Your task to perform on an android device: Search for hotels in London Image 0: 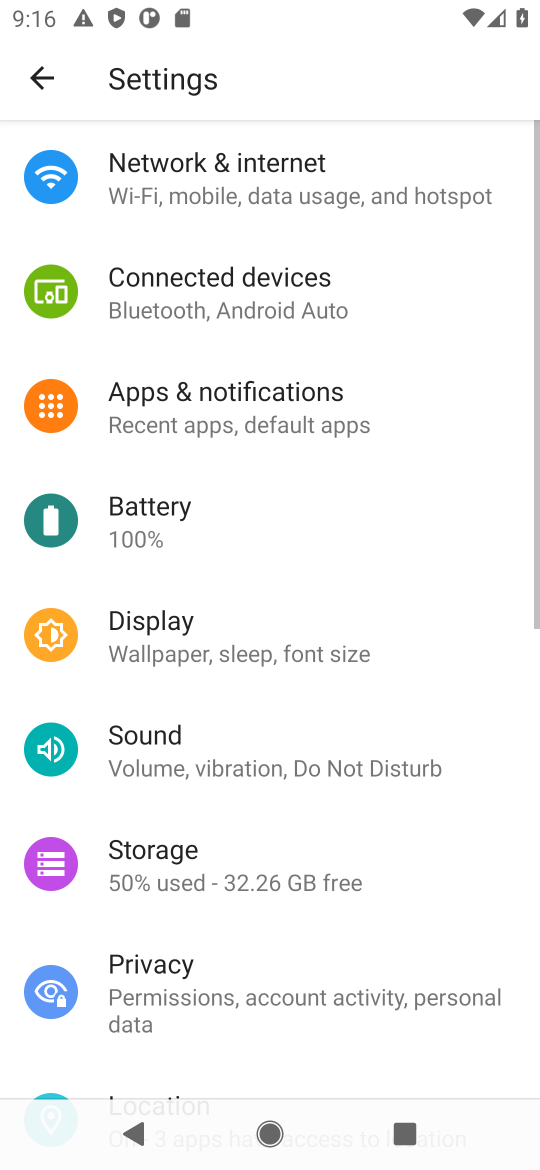
Step 0: press home button
Your task to perform on an android device: Search for hotels in London Image 1: 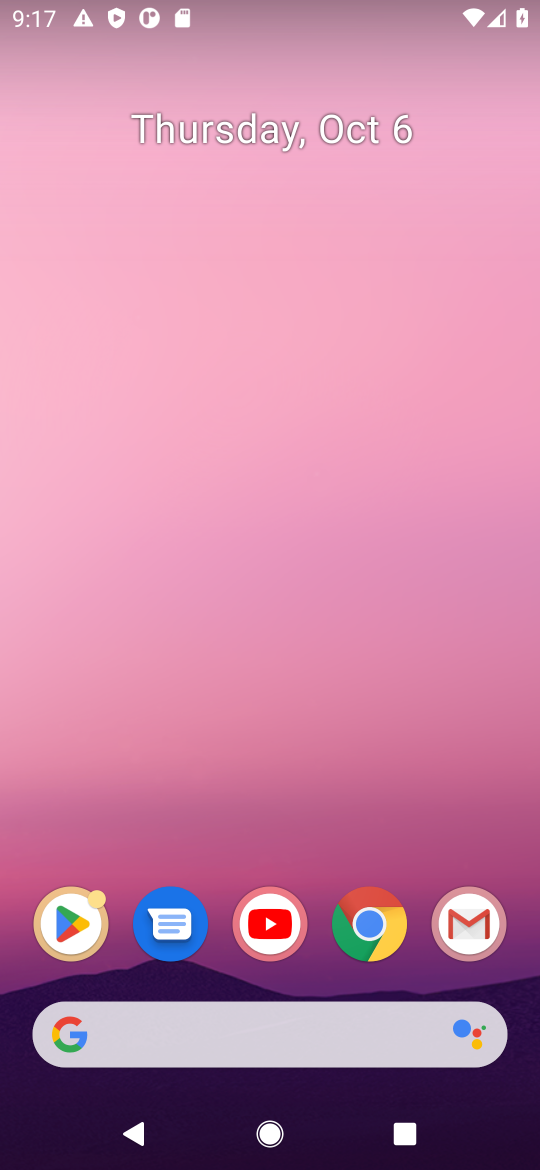
Step 1: drag from (274, 968) to (370, 62)
Your task to perform on an android device: Search for hotels in London Image 2: 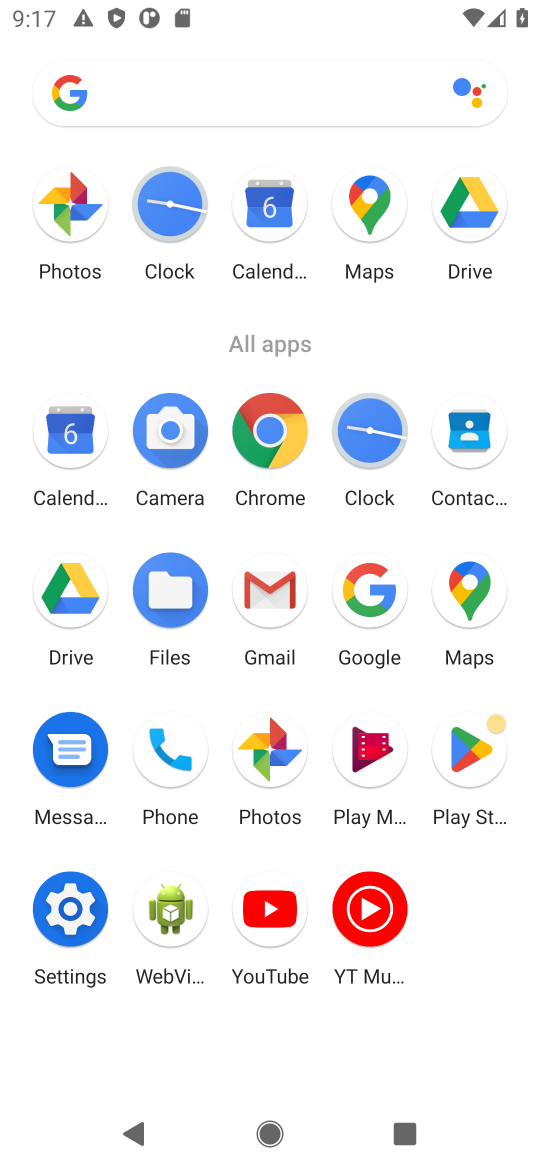
Step 2: click (61, 210)
Your task to perform on an android device: Search for hotels in London Image 3: 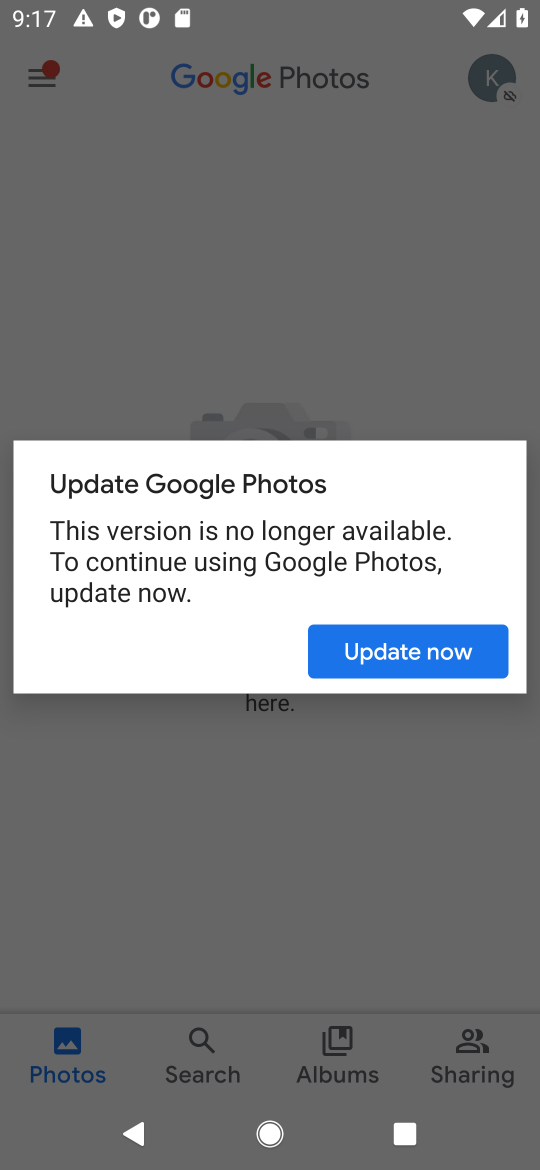
Step 3: press back button
Your task to perform on an android device: Search for hotels in London Image 4: 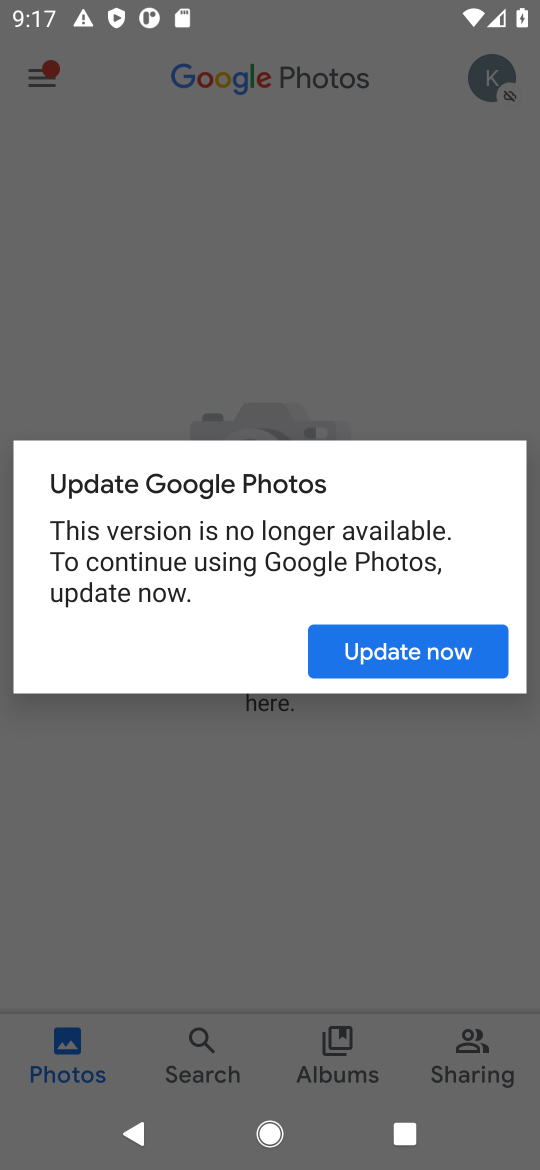
Step 4: press home button
Your task to perform on an android device: Search for hotels in London Image 5: 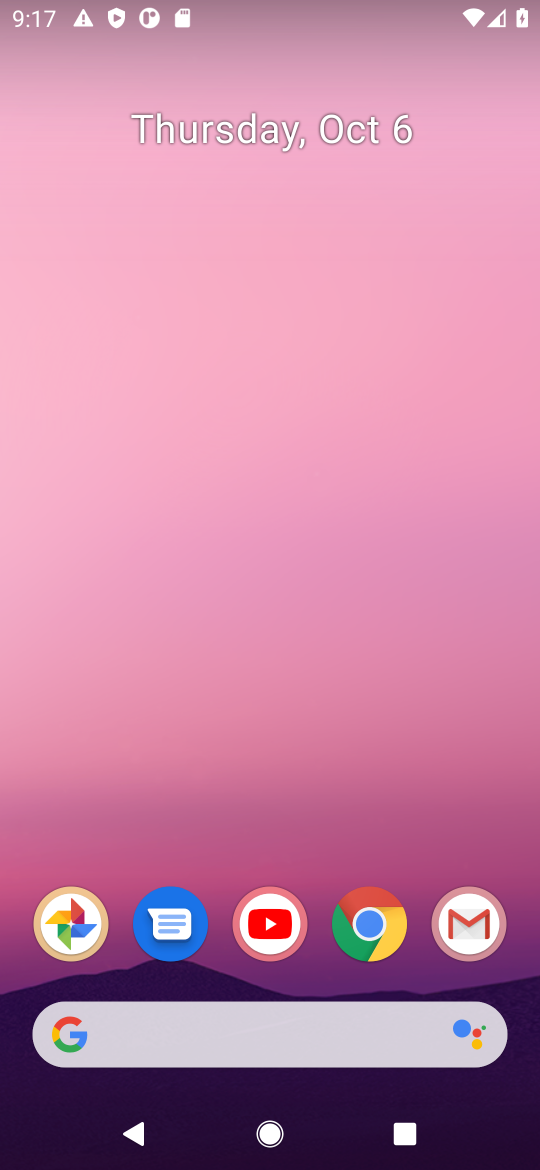
Step 5: drag from (244, 1015) to (377, 161)
Your task to perform on an android device: Search for hotels in London Image 6: 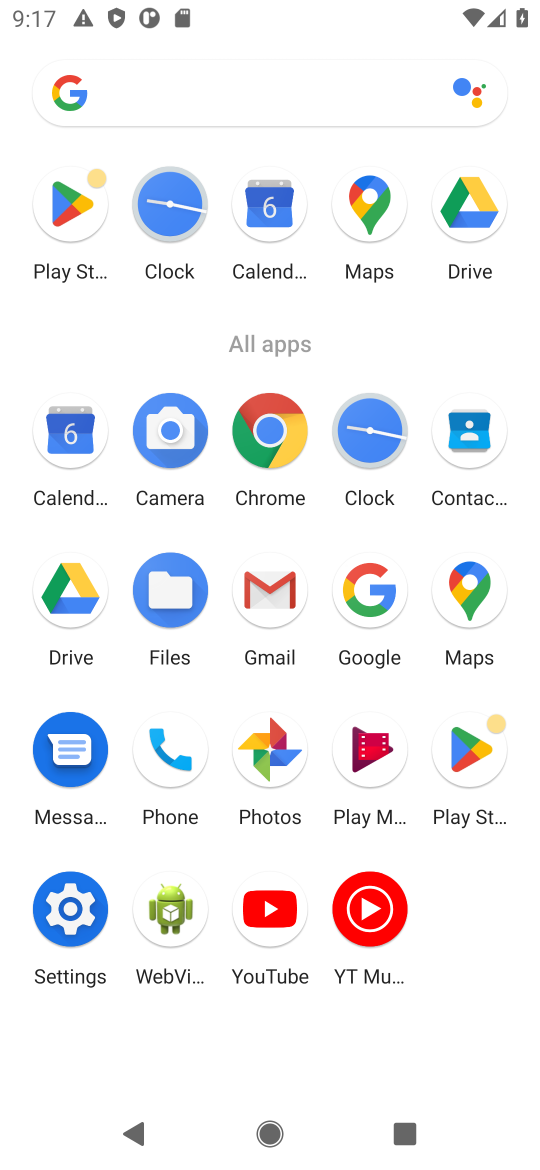
Step 6: click (355, 213)
Your task to perform on an android device: Search for hotels in London Image 7: 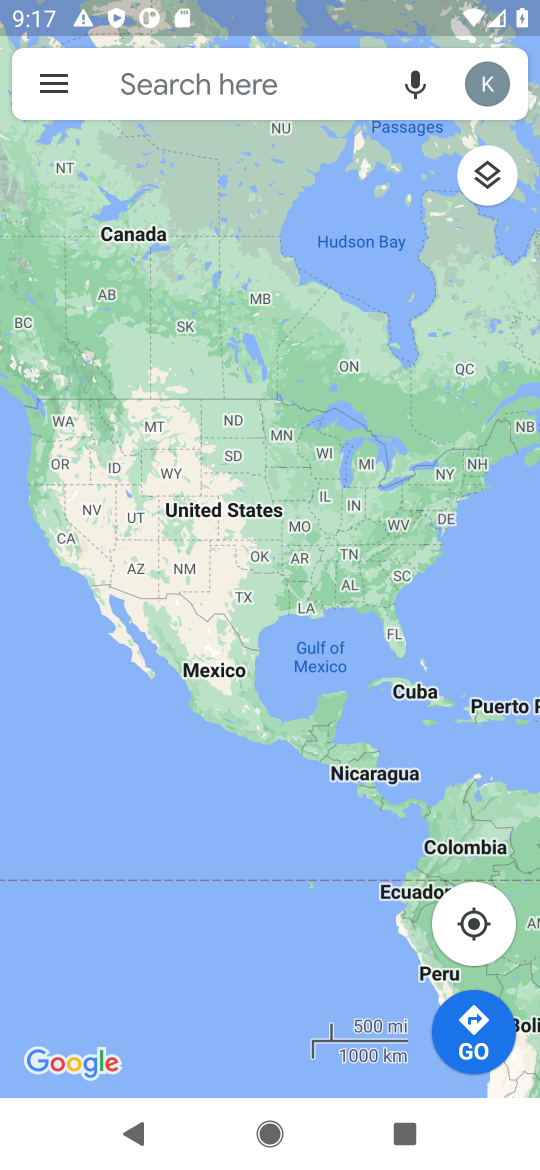
Step 7: click (274, 79)
Your task to perform on an android device: Search for hotels in London Image 8: 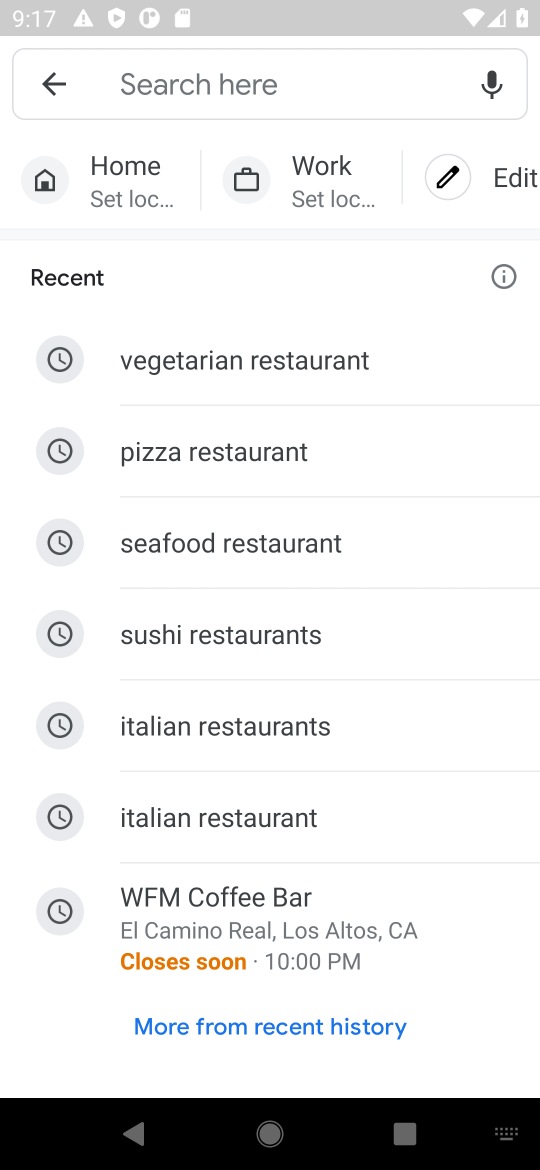
Step 8: type " hotels in London"
Your task to perform on an android device: Search for hotels in London Image 9: 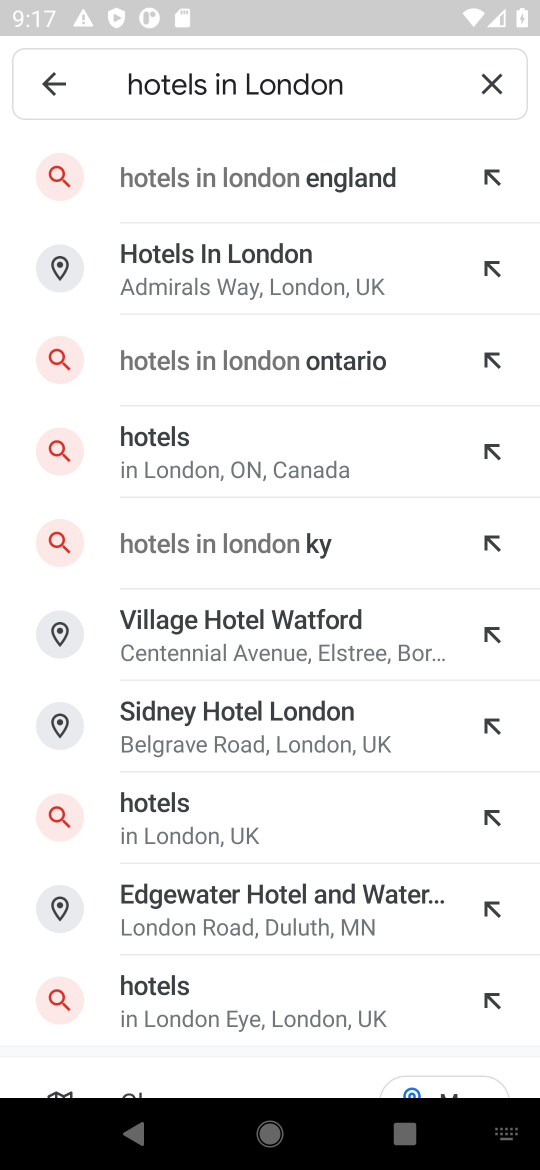
Step 9: click (262, 276)
Your task to perform on an android device: Search for hotels in London Image 10: 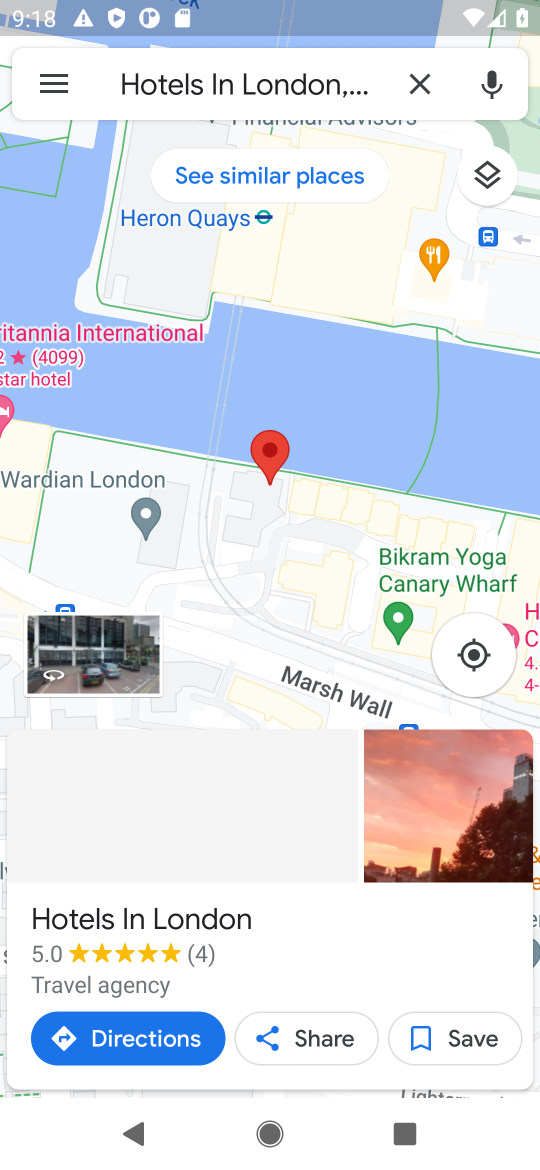
Step 10: drag from (251, 956) to (451, 113)
Your task to perform on an android device: Search for hotels in London Image 11: 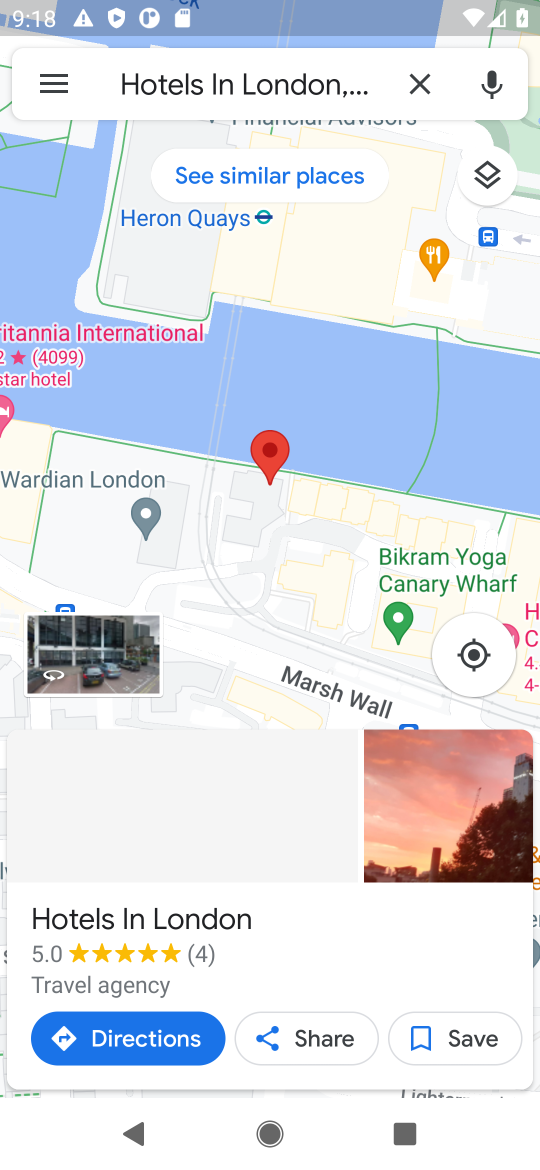
Step 11: drag from (155, 964) to (441, 80)
Your task to perform on an android device: Search for hotels in London Image 12: 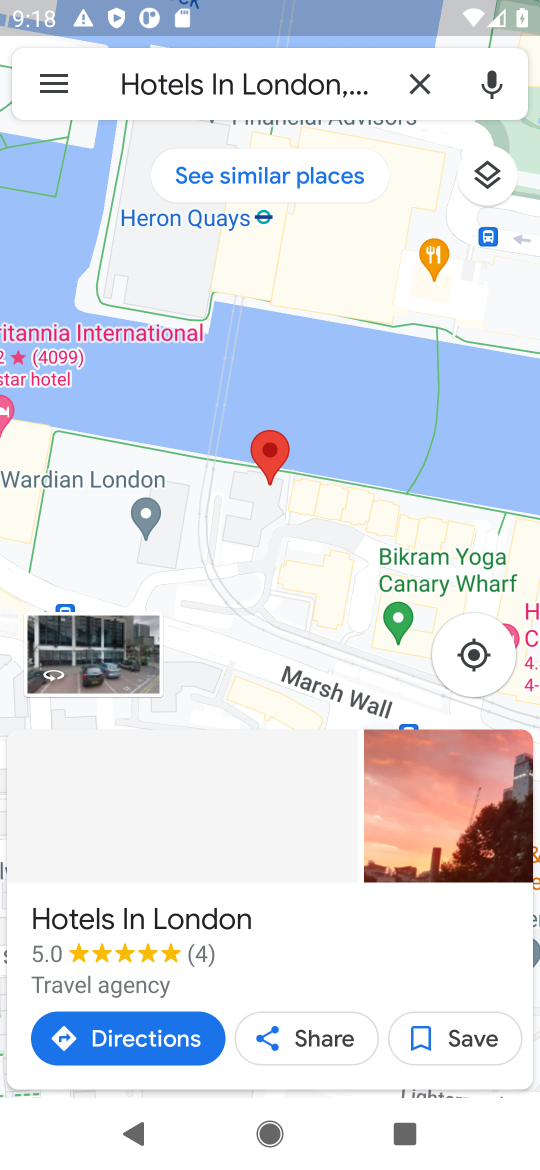
Step 12: click (156, 922)
Your task to perform on an android device: Search for hotels in London Image 13: 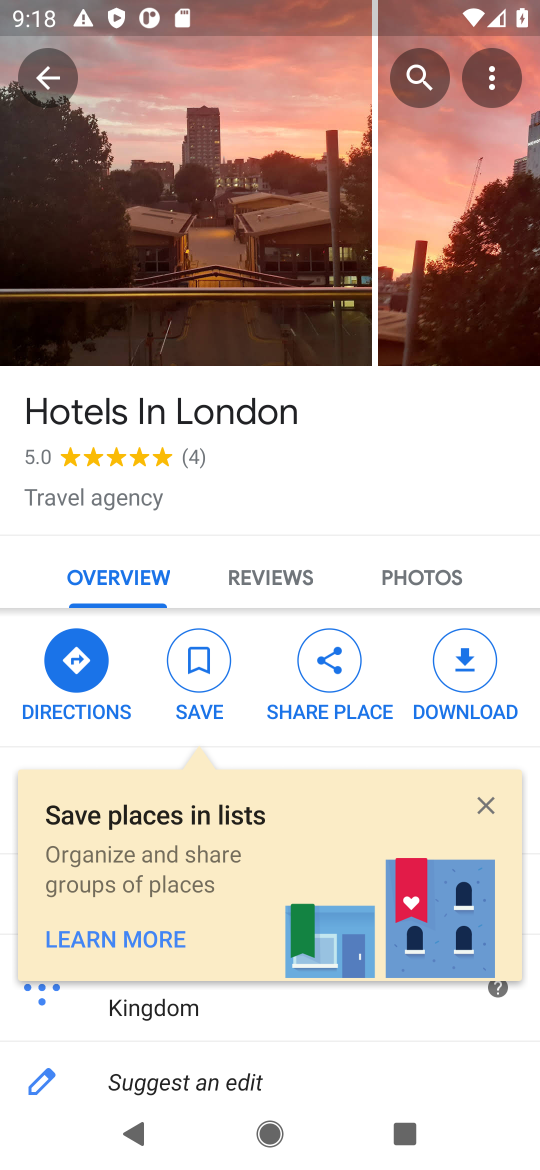
Step 13: click (486, 796)
Your task to perform on an android device: Search for hotels in London Image 14: 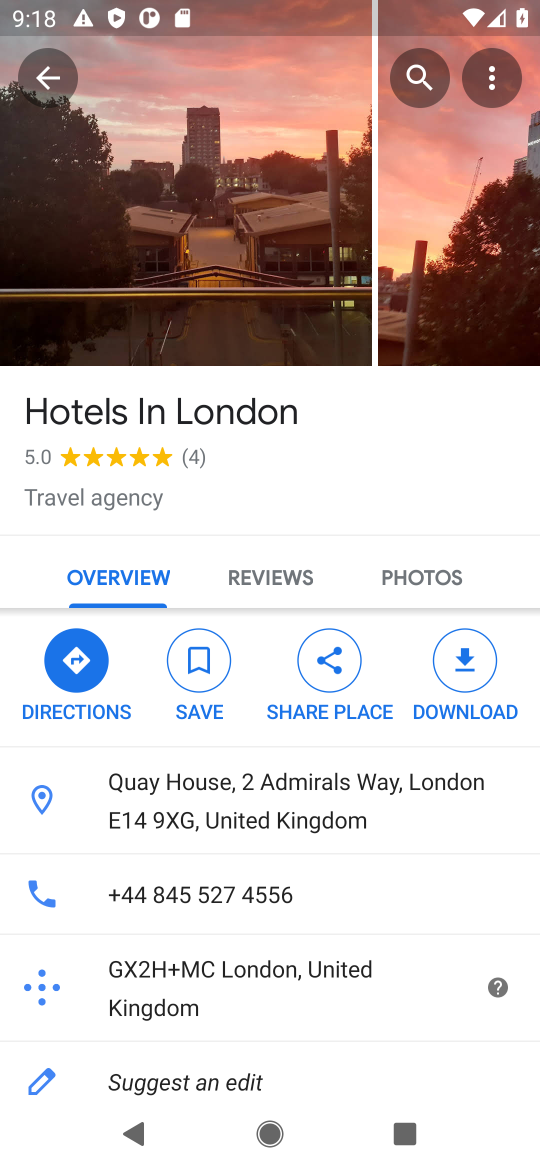
Step 14: task complete